Your task to perform on an android device: turn off priority inbox in the gmail app Image 0: 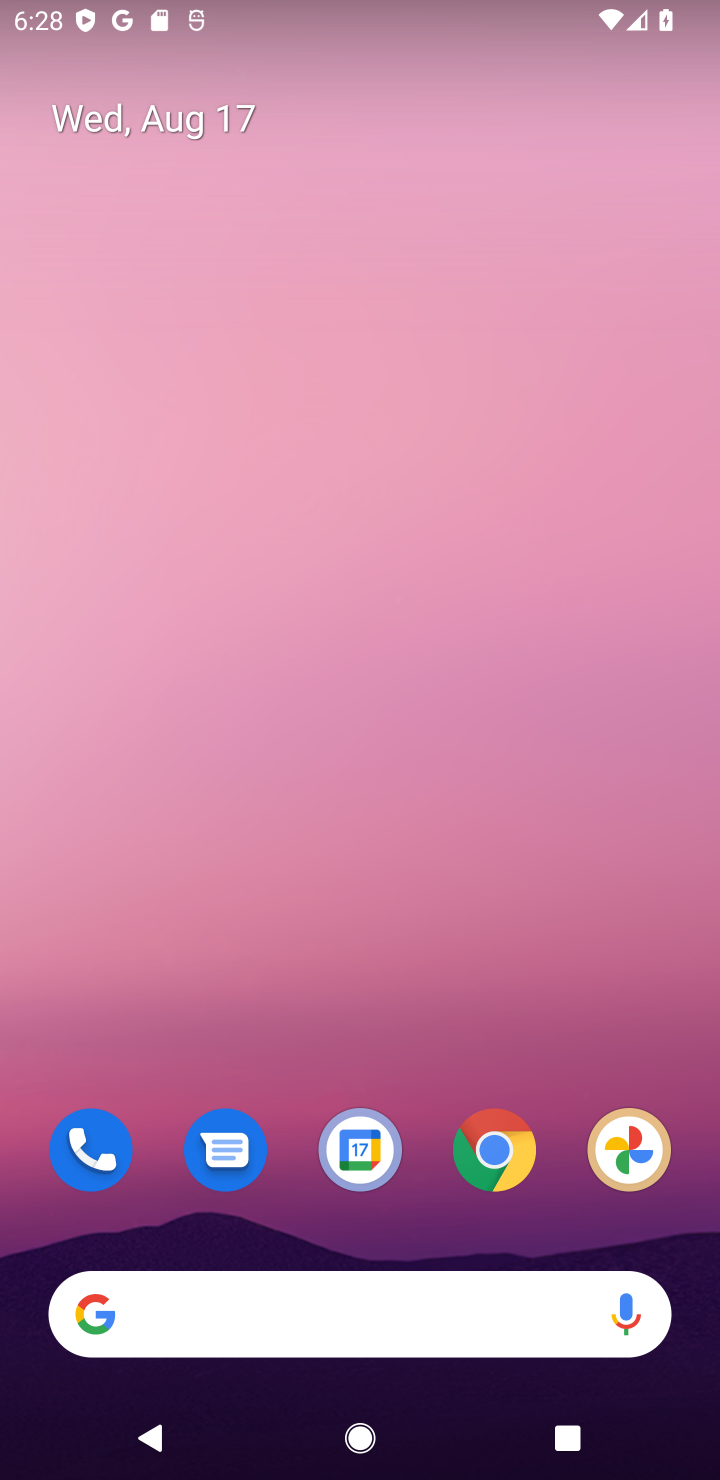
Step 0: drag from (224, 1257) to (373, 238)
Your task to perform on an android device: turn off priority inbox in the gmail app Image 1: 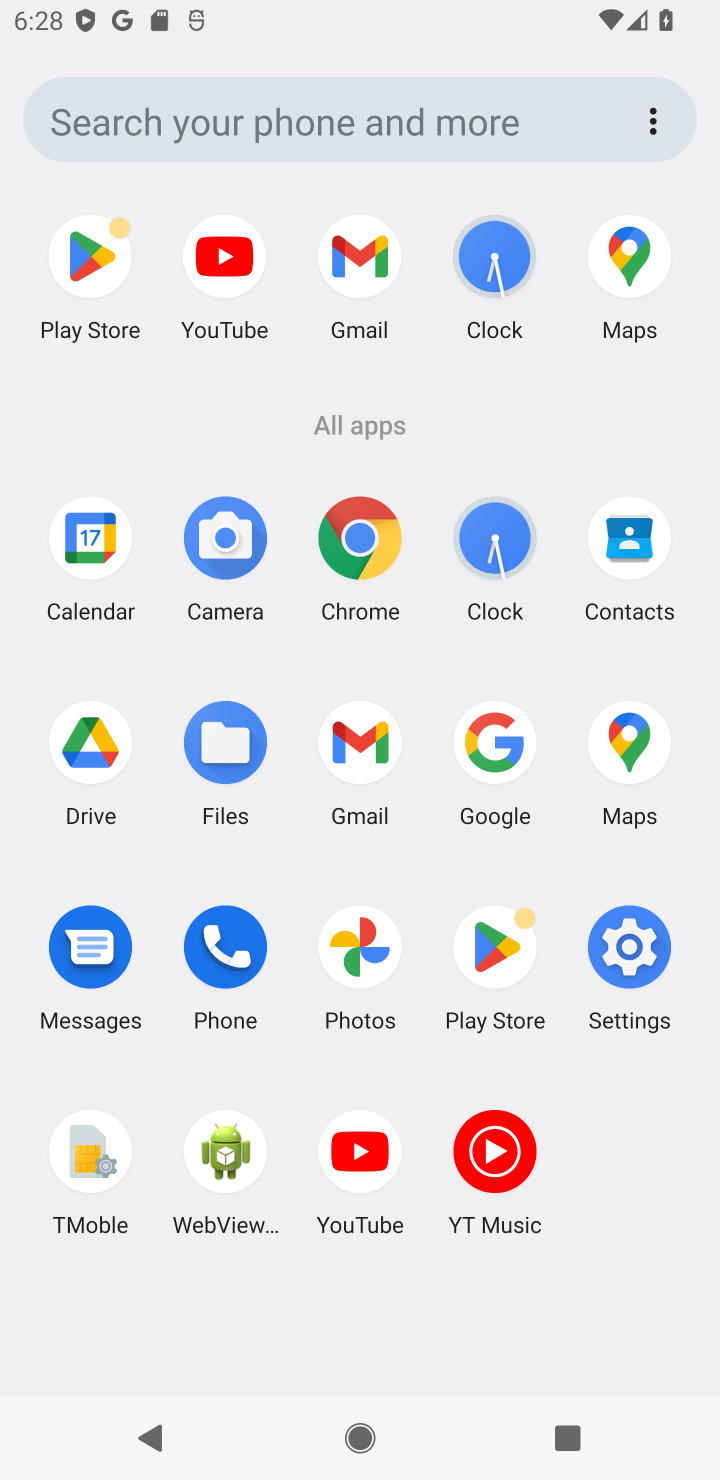
Step 1: click (365, 264)
Your task to perform on an android device: turn off priority inbox in the gmail app Image 2: 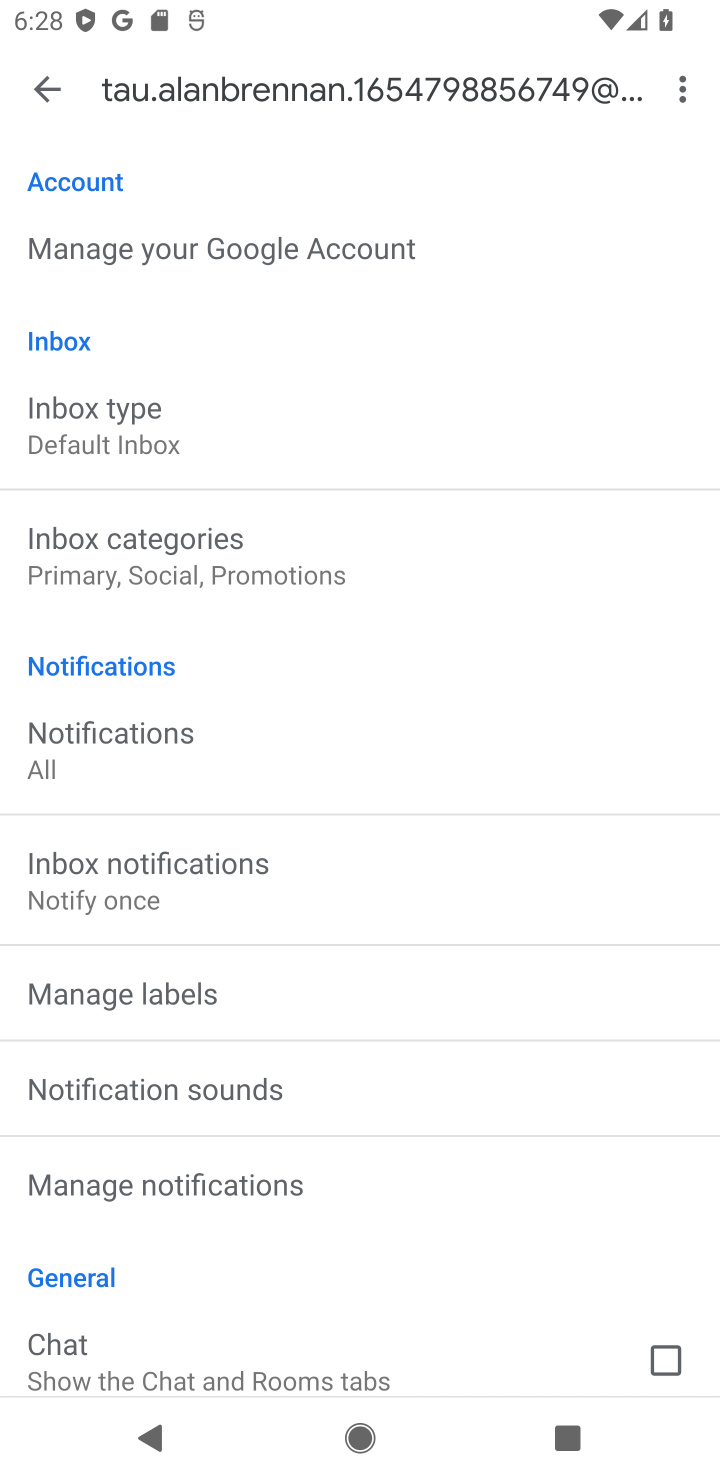
Step 2: drag from (218, 470) to (170, 1100)
Your task to perform on an android device: turn off priority inbox in the gmail app Image 3: 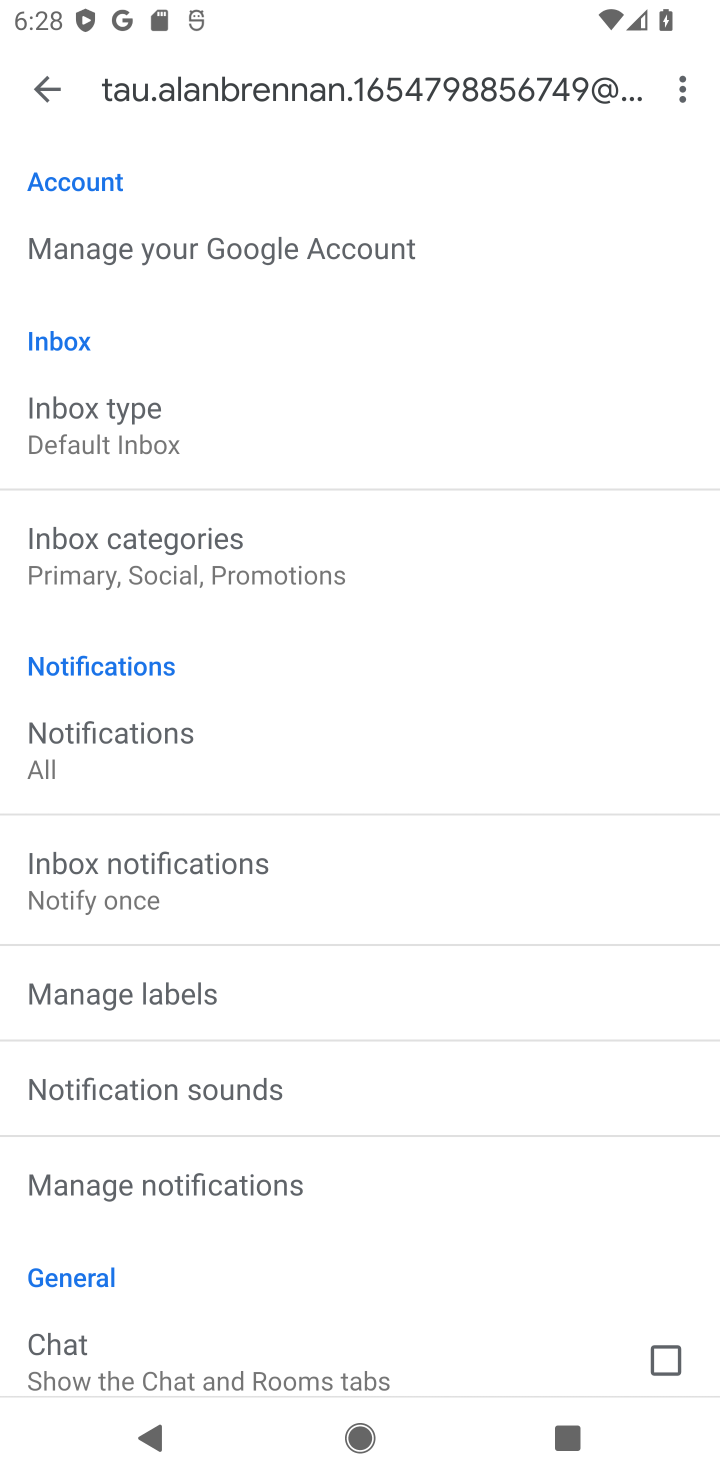
Step 3: click (106, 443)
Your task to perform on an android device: turn off priority inbox in the gmail app Image 4: 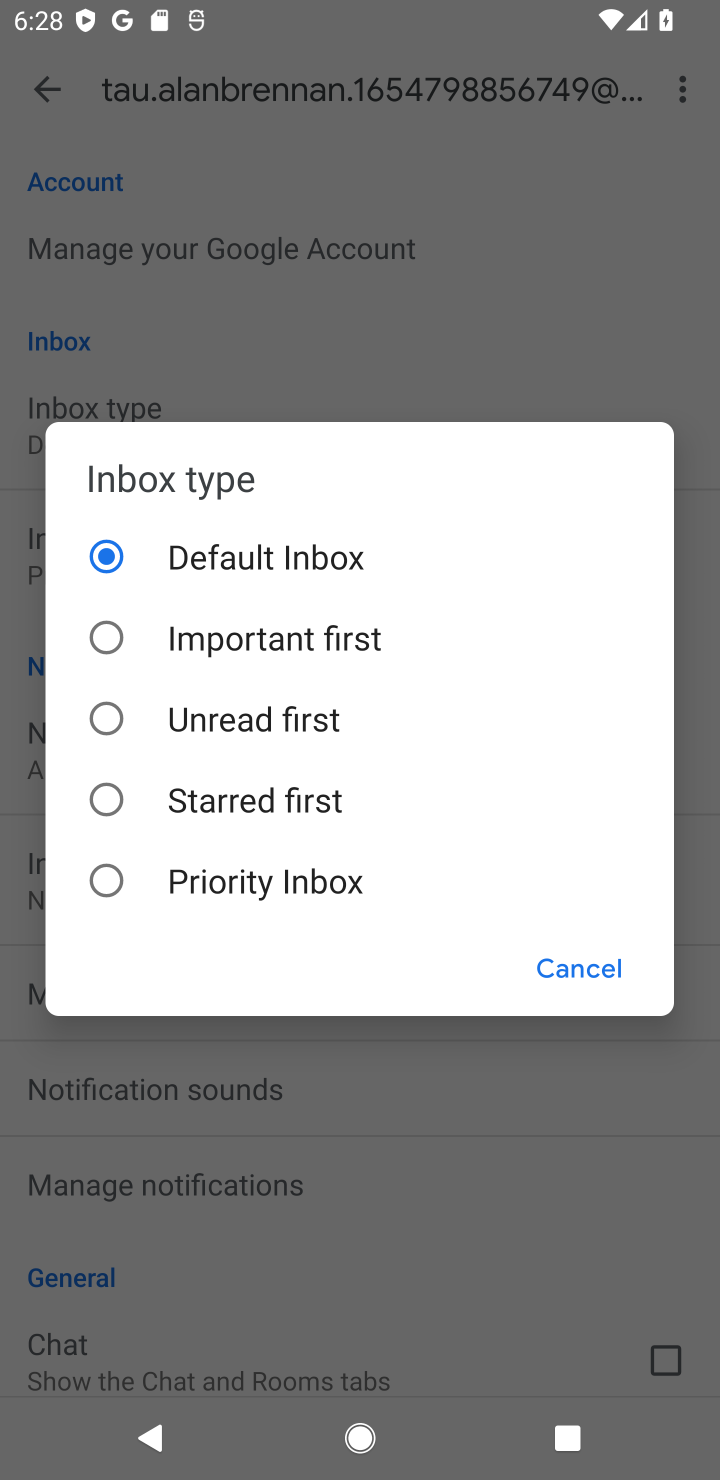
Step 4: click (562, 961)
Your task to perform on an android device: turn off priority inbox in the gmail app Image 5: 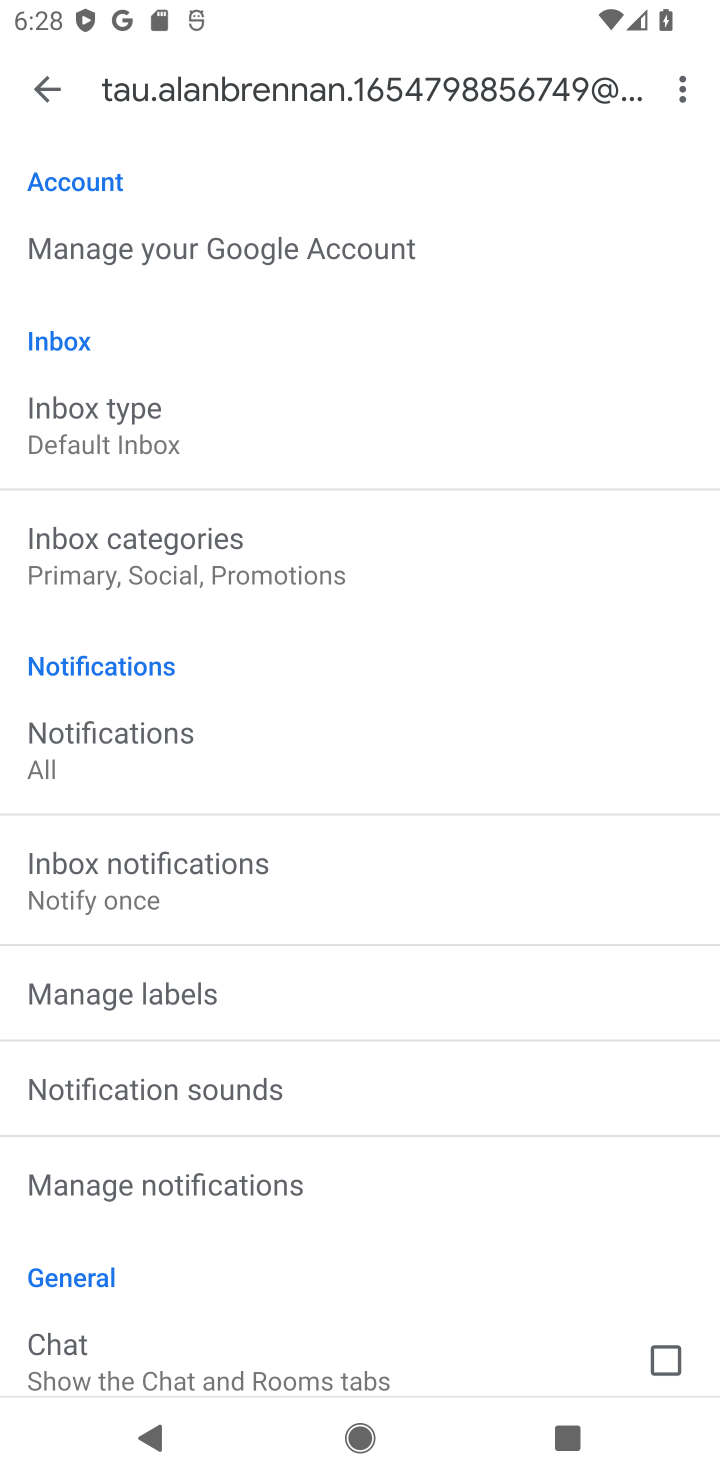
Step 5: task complete